Your task to perform on an android device: delete the emails in spam in the gmail app Image 0: 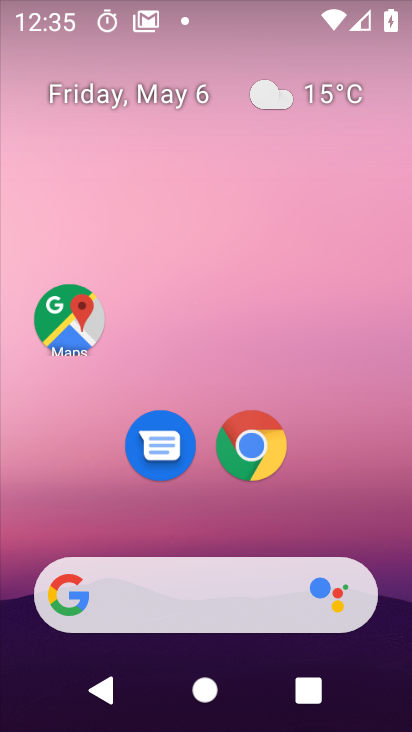
Step 0: drag from (251, 584) to (204, 173)
Your task to perform on an android device: delete the emails in spam in the gmail app Image 1: 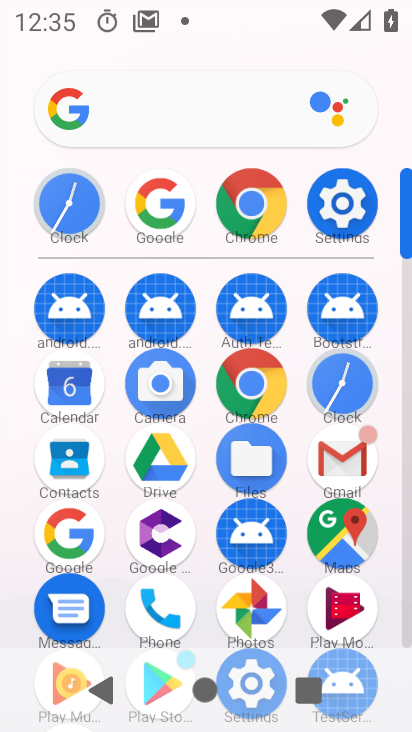
Step 1: click (345, 448)
Your task to perform on an android device: delete the emails in spam in the gmail app Image 2: 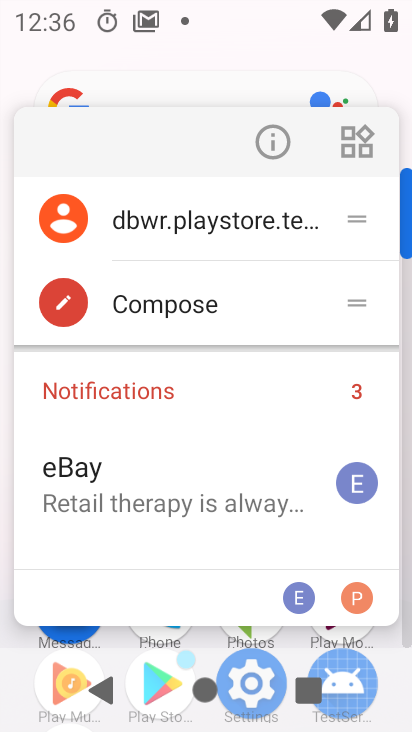
Step 2: click (161, 203)
Your task to perform on an android device: delete the emails in spam in the gmail app Image 3: 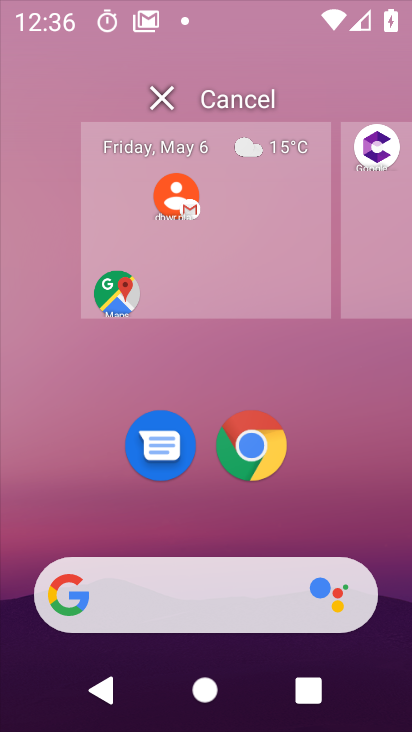
Step 3: click (159, 212)
Your task to perform on an android device: delete the emails in spam in the gmail app Image 4: 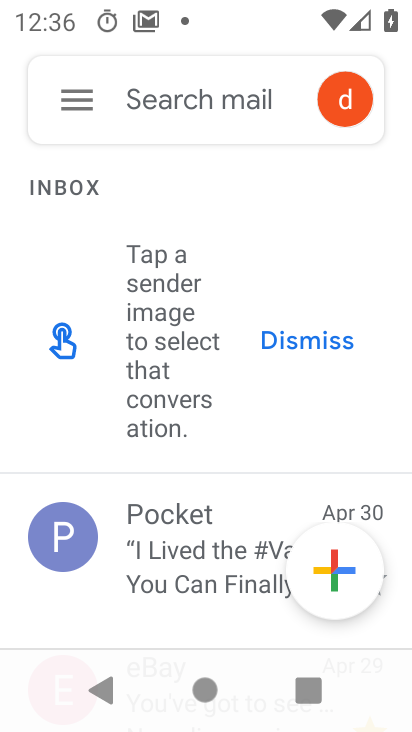
Step 4: click (193, 555)
Your task to perform on an android device: delete the emails in spam in the gmail app Image 5: 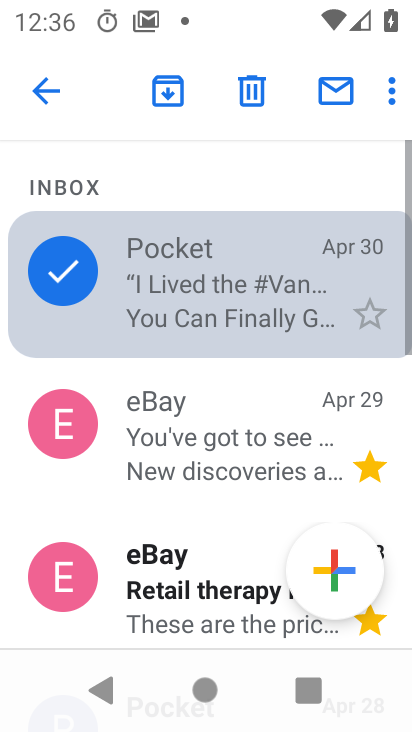
Step 5: click (193, 555)
Your task to perform on an android device: delete the emails in spam in the gmail app Image 6: 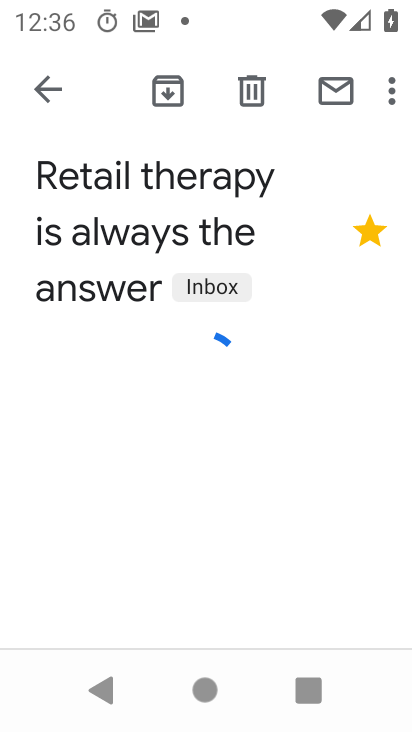
Step 6: click (260, 87)
Your task to perform on an android device: delete the emails in spam in the gmail app Image 7: 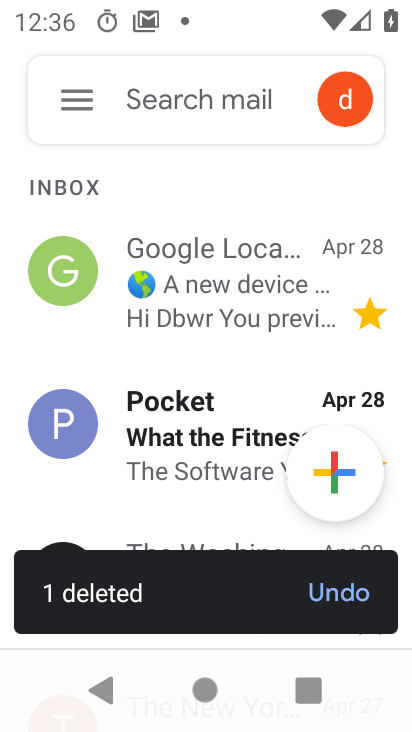
Step 7: task complete